Your task to perform on an android device: check out phone information Image 0: 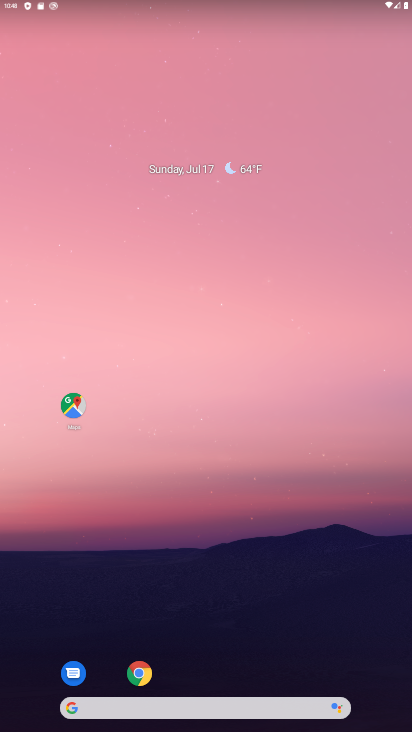
Step 0: drag from (382, 652) to (295, 184)
Your task to perform on an android device: check out phone information Image 1: 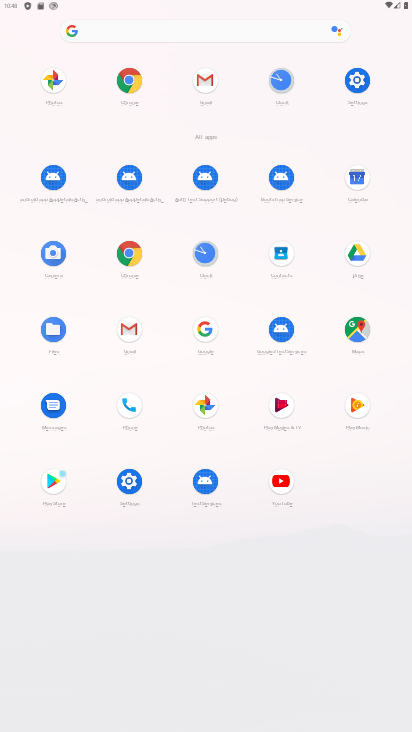
Step 1: click (126, 485)
Your task to perform on an android device: check out phone information Image 2: 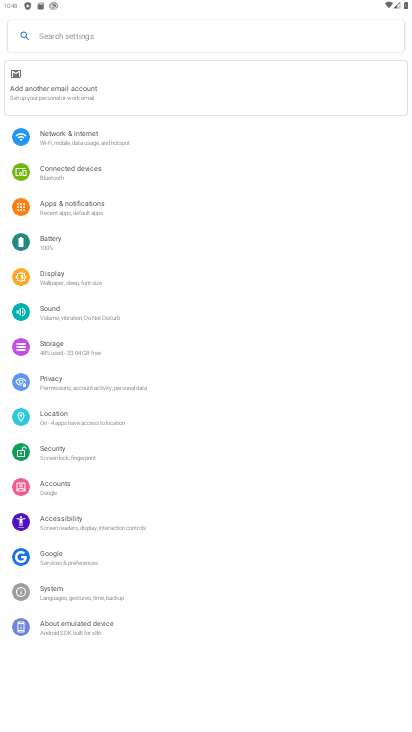
Step 2: click (109, 630)
Your task to perform on an android device: check out phone information Image 3: 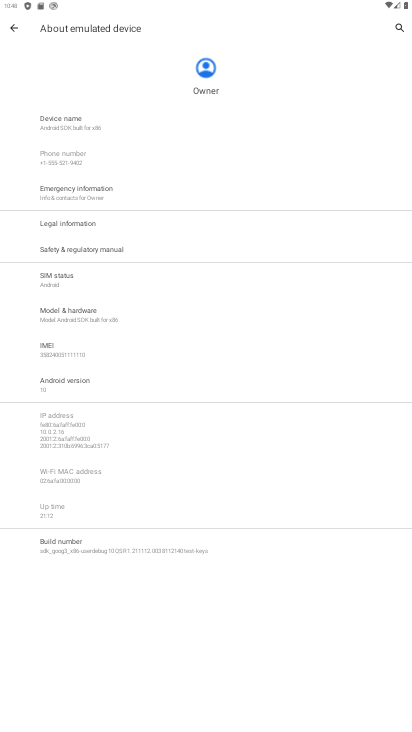
Step 3: task complete